Your task to perform on an android device: change alarm snooze length Image 0: 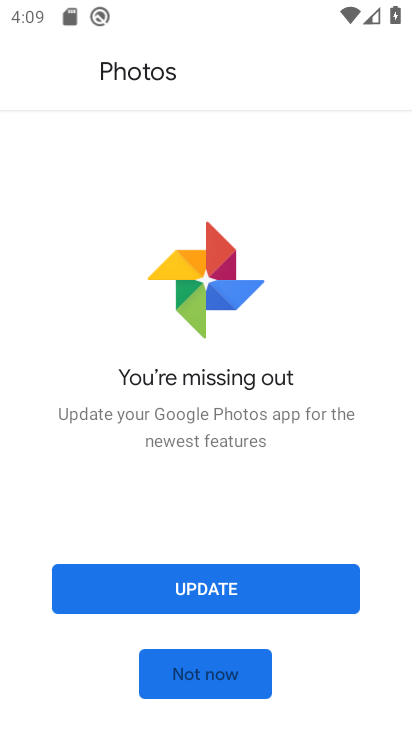
Step 0: press home button
Your task to perform on an android device: change alarm snooze length Image 1: 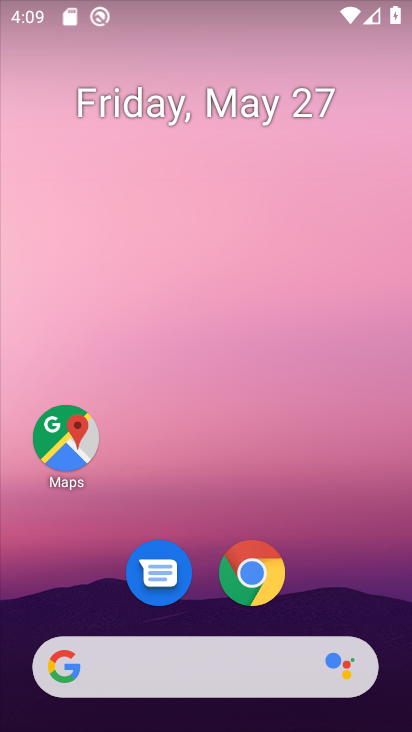
Step 1: drag from (237, 502) to (232, 12)
Your task to perform on an android device: change alarm snooze length Image 2: 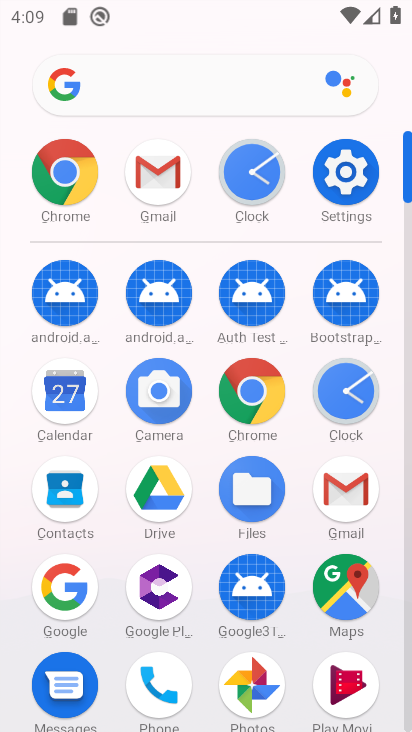
Step 2: click (262, 172)
Your task to perform on an android device: change alarm snooze length Image 3: 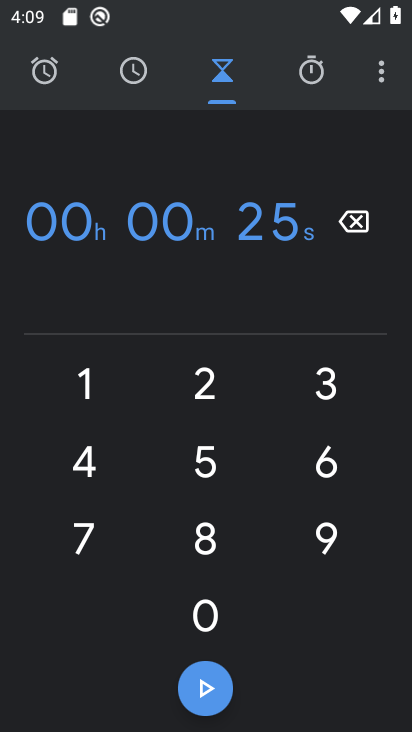
Step 3: click (387, 78)
Your task to perform on an android device: change alarm snooze length Image 4: 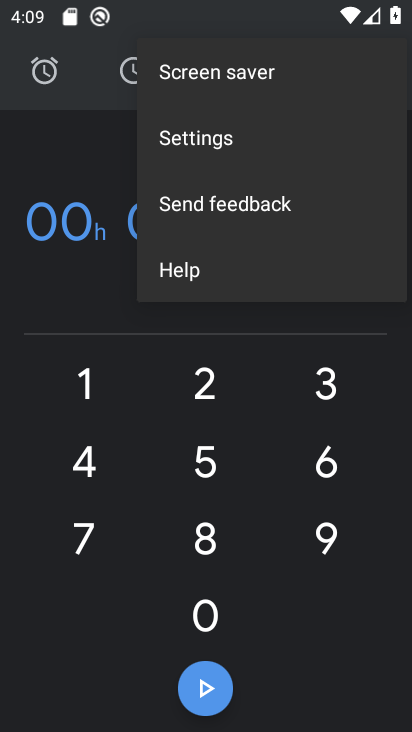
Step 4: click (274, 135)
Your task to perform on an android device: change alarm snooze length Image 5: 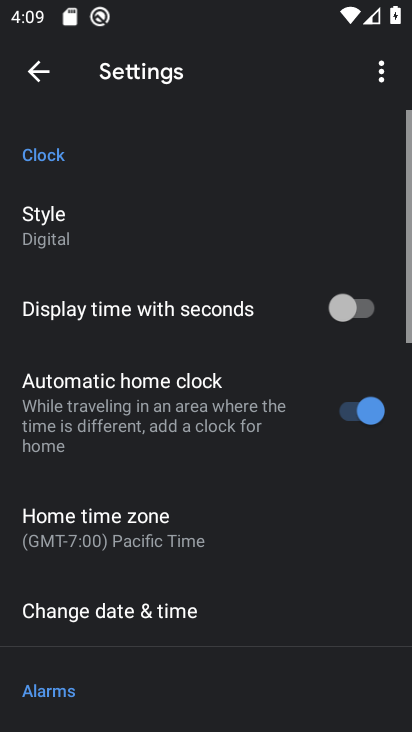
Step 5: drag from (231, 561) to (236, 48)
Your task to perform on an android device: change alarm snooze length Image 6: 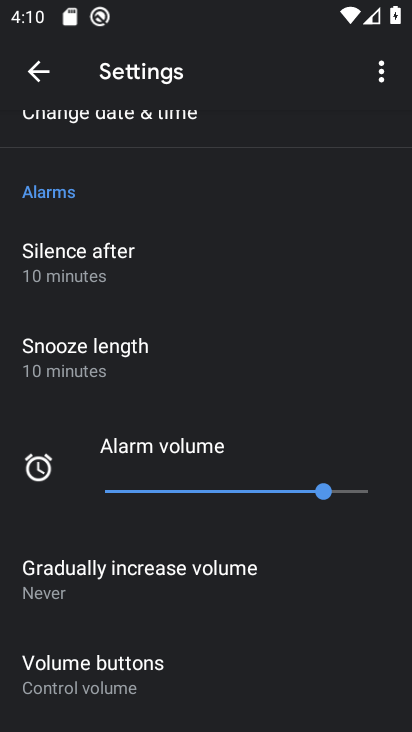
Step 6: click (120, 347)
Your task to perform on an android device: change alarm snooze length Image 7: 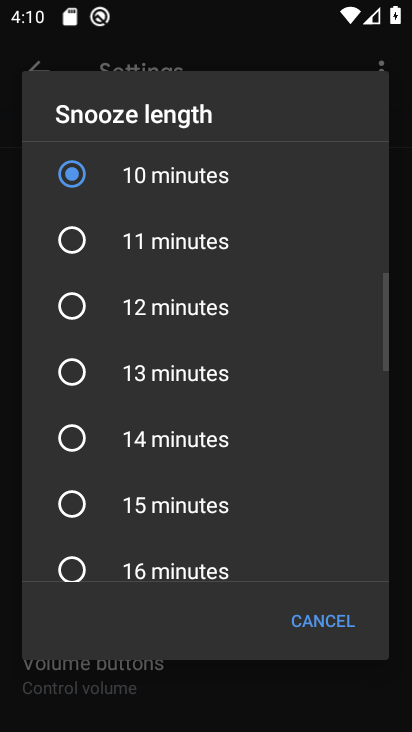
Step 7: click (78, 304)
Your task to perform on an android device: change alarm snooze length Image 8: 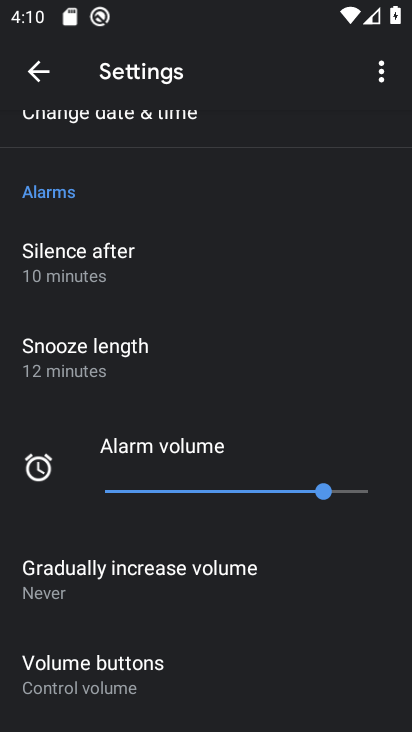
Step 8: task complete